Your task to perform on an android device: toggle pop-ups in chrome Image 0: 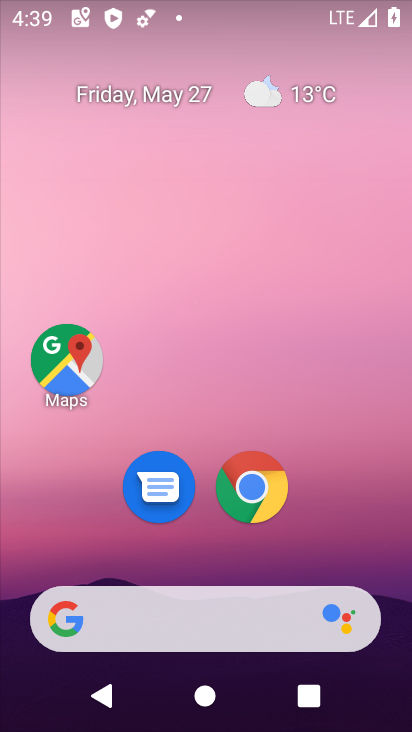
Step 0: click (251, 495)
Your task to perform on an android device: toggle pop-ups in chrome Image 1: 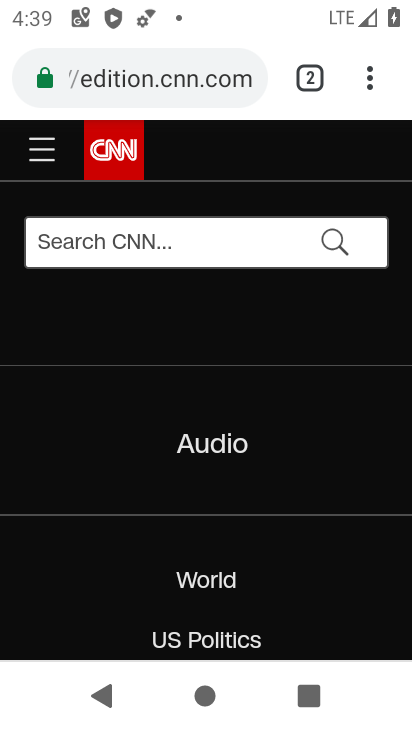
Step 1: drag from (378, 75) to (209, 548)
Your task to perform on an android device: toggle pop-ups in chrome Image 2: 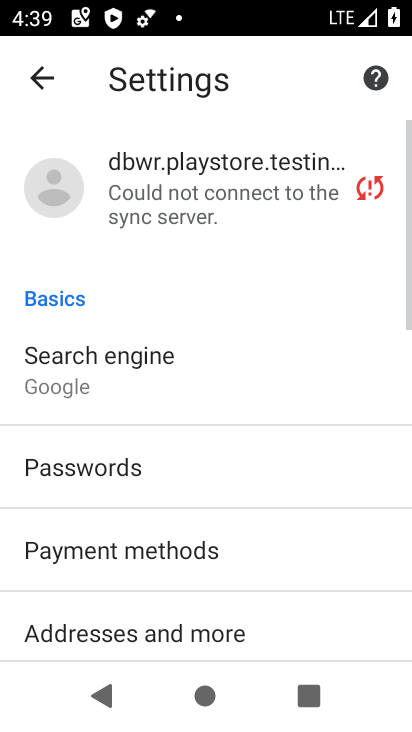
Step 2: drag from (208, 519) to (258, 155)
Your task to perform on an android device: toggle pop-ups in chrome Image 3: 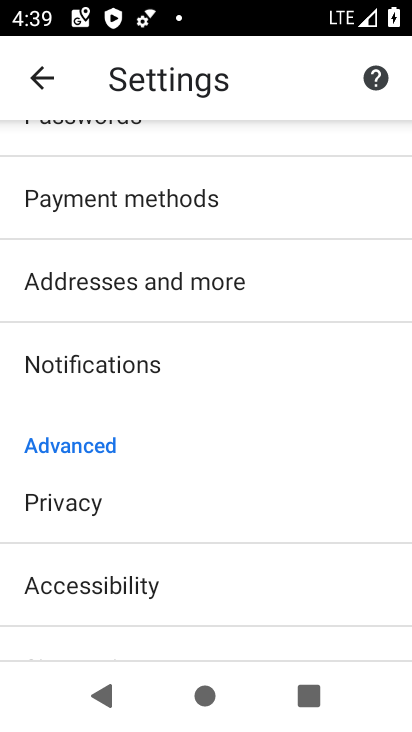
Step 3: drag from (243, 463) to (301, 162)
Your task to perform on an android device: toggle pop-ups in chrome Image 4: 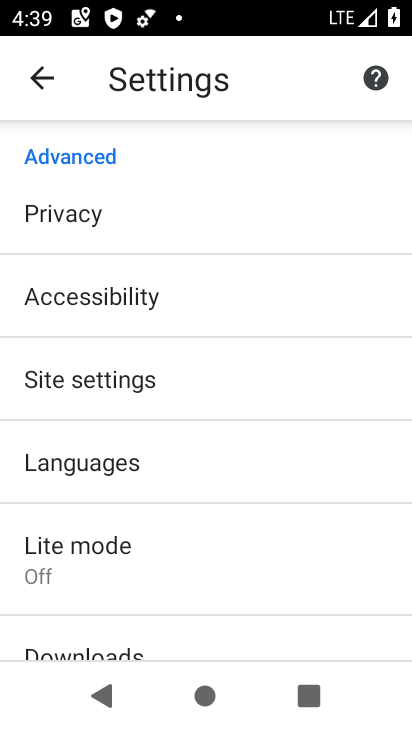
Step 4: drag from (176, 504) to (211, 350)
Your task to perform on an android device: toggle pop-ups in chrome Image 5: 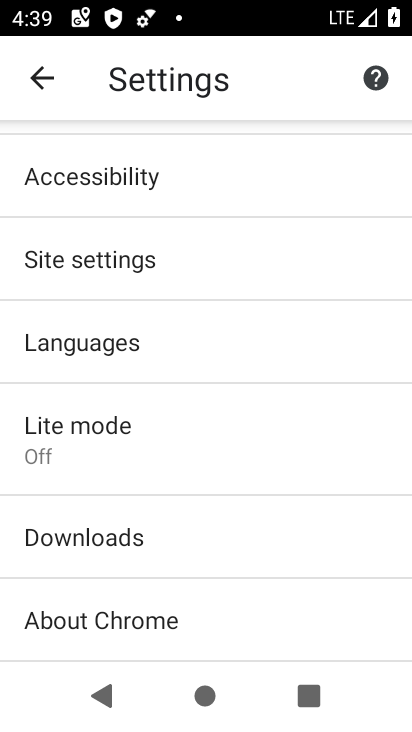
Step 5: click (105, 262)
Your task to perform on an android device: toggle pop-ups in chrome Image 6: 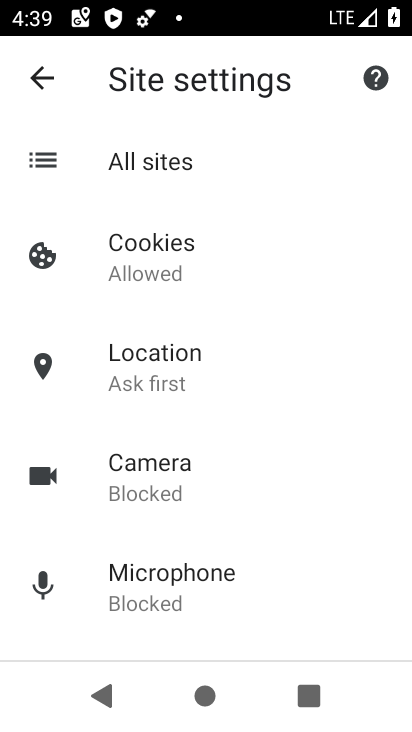
Step 6: drag from (153, 569) to (150, 189)
Your task to perform on an android device: toggle pop-ups in chrome Image 7: 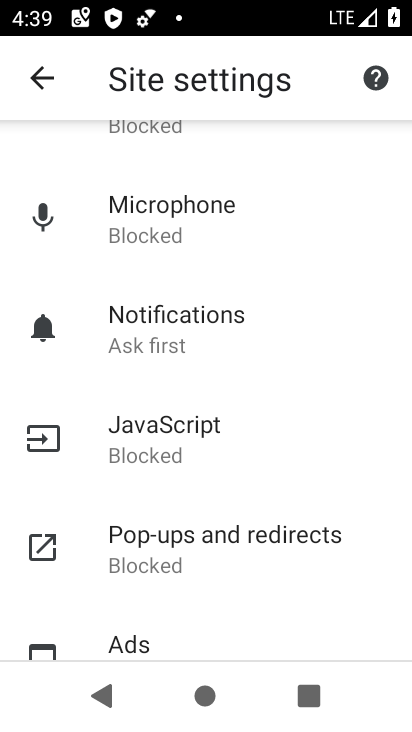
Step 7: click (208, 534)
Your task to perform on an android device: toggle pop-ups in chrome Image 8: 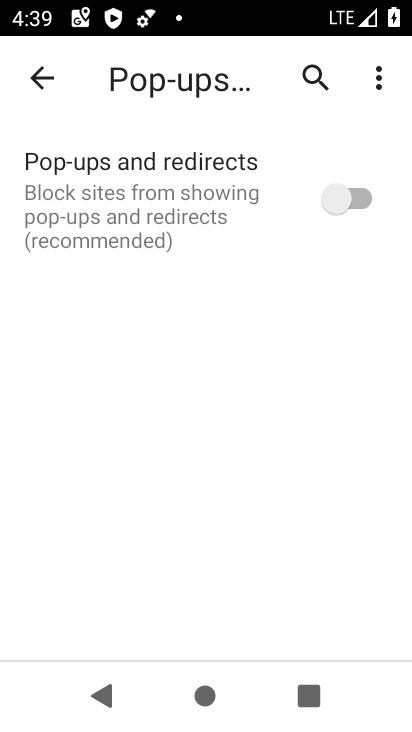
Step 8: click (366, 195)
Your task to perform on an android device: toggle pop-ups in chrome Image 9: 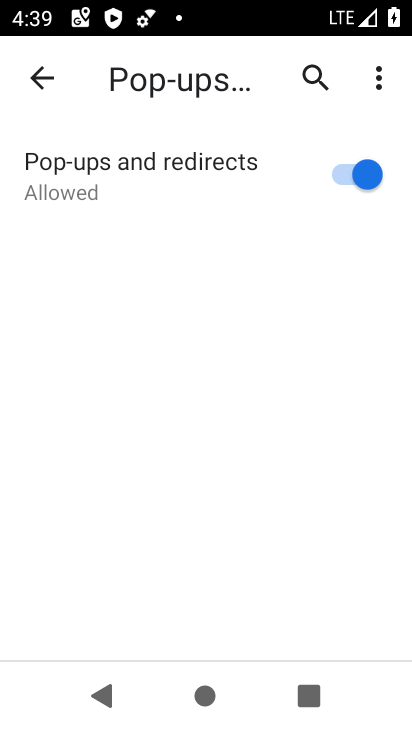
Step 9: task complete